Your task to perform on an android device: Go to Google maps Image 0: 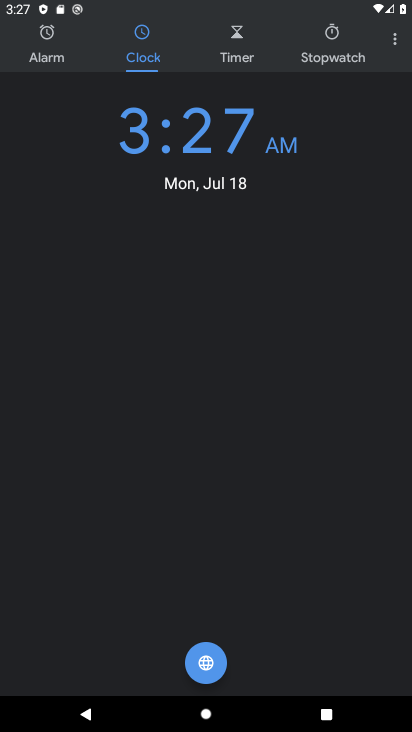
Step 0: press home button
Your task to perform on an android device: Go to Google maps Image 1: 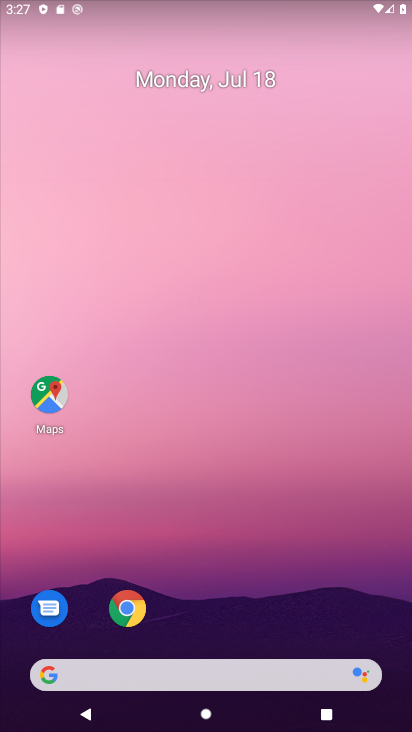
Step 1: drag from (250, 648) to (289, 58)
Your task to perform on an android device: Go to Google maps Image 2: 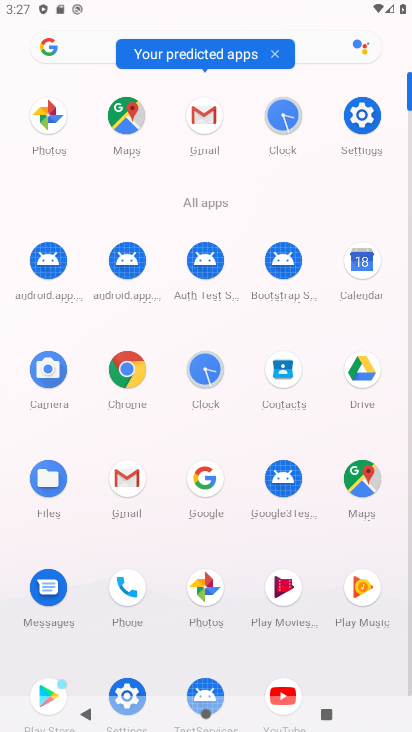
Step 2: click (358, 489)
Your task to perform on an android device: Go to Google maps Image 3: 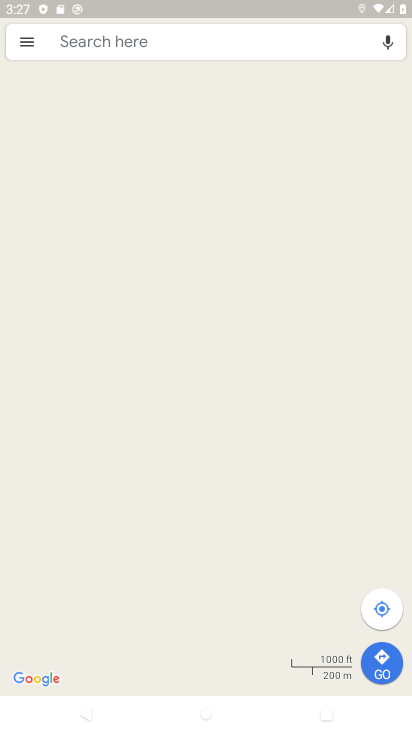
Step 3: task complete